Your task to perform on an android device: Go to ESPN.com Image 0: 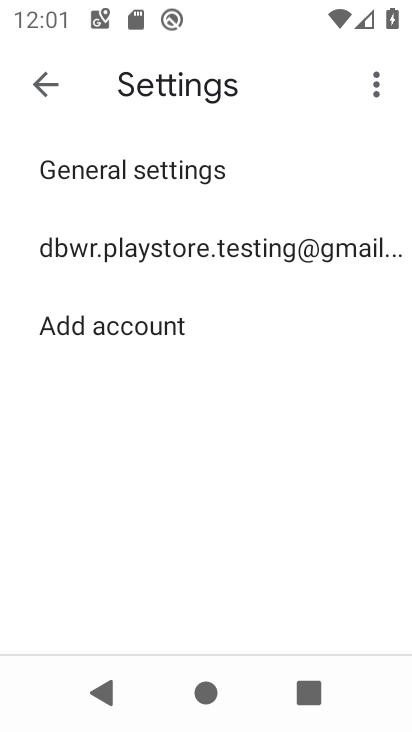
Step 0: press home button
Your task to perform on an android device: Go to ESPN.com Image 1: 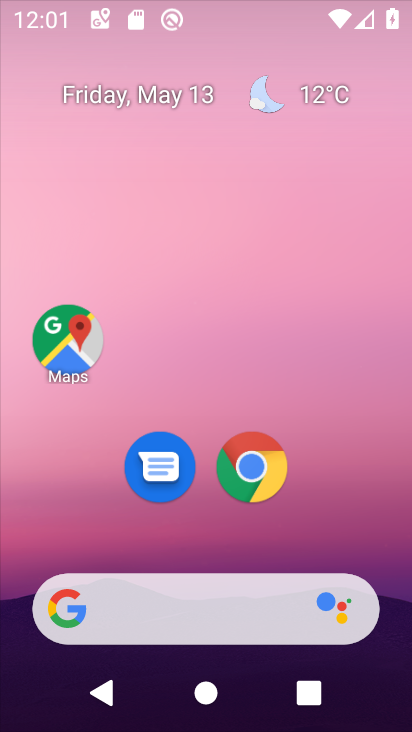
Step 1: click (249, 485)
Your task to perform on an android device: Go to ESPN.com Image 2: 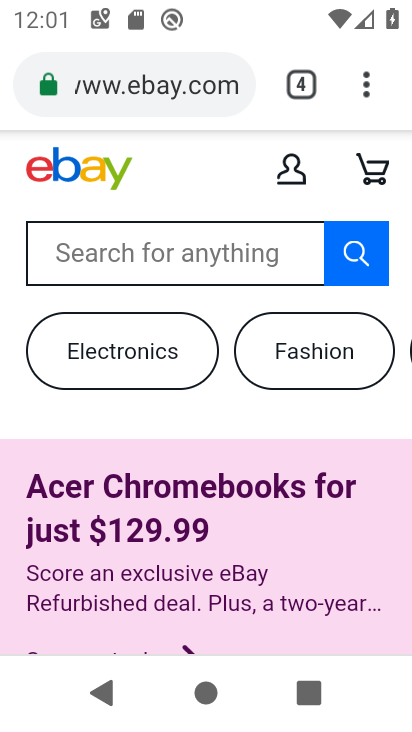
Step 2: press back button
Your task to perform on an android device: Go to ESPN.com Image 3: 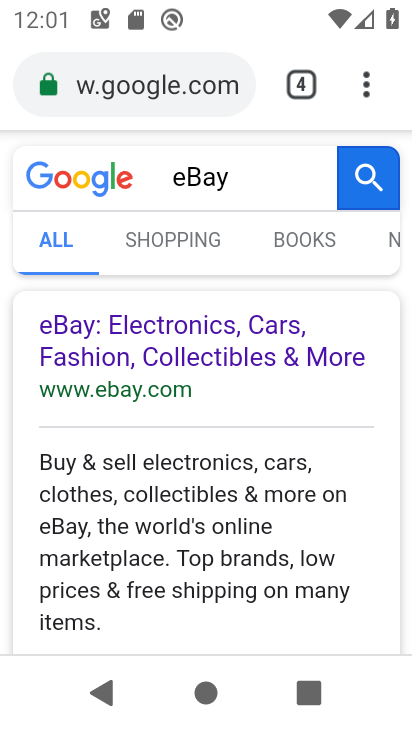
Step 3: press back button
Your task to perform on an android device: Go to ESPN.com Image 4: 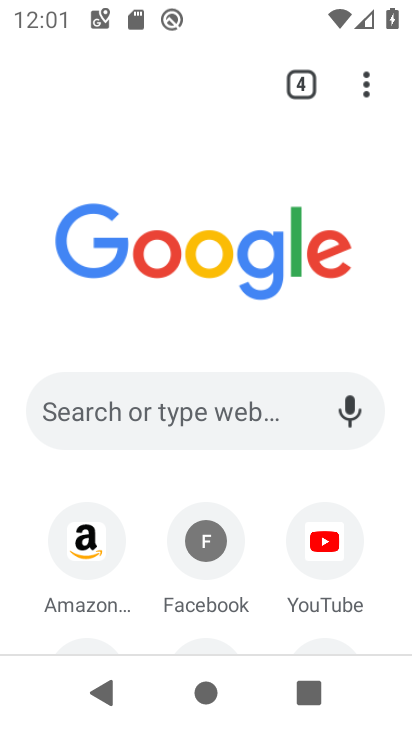
Step 4: drag from (255, 560) to (226, 238)
Your task to perform on an android device: Go to ESPN.com Image 5: 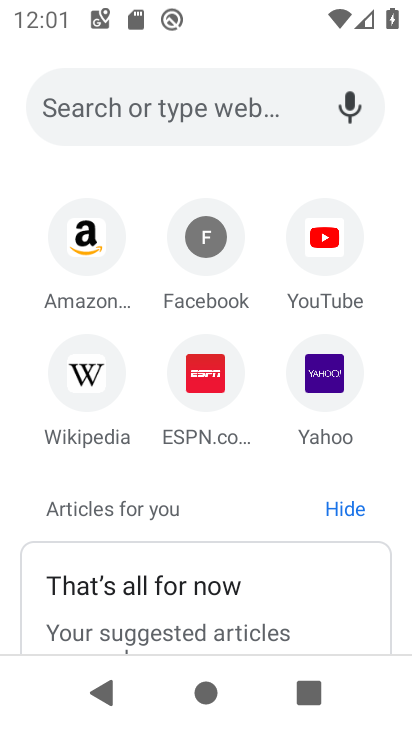
Step 5: click (192, 376)
Your task to perform on an android device: Go to ESPN.com Image 6: 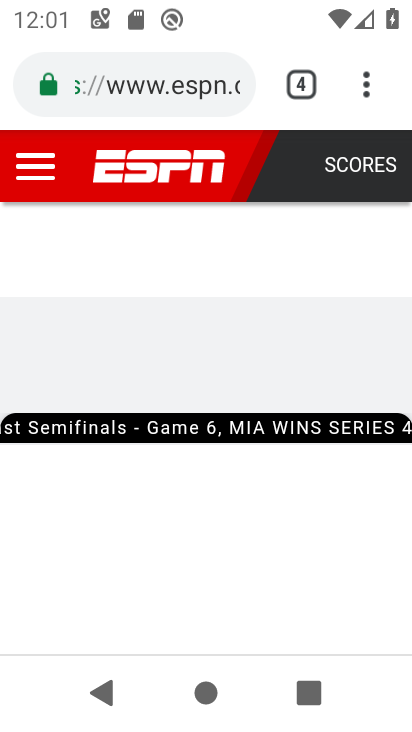
Step 6: task complete